Your task to perform on an android device: turn smart compose on in the gmail app Image 0: 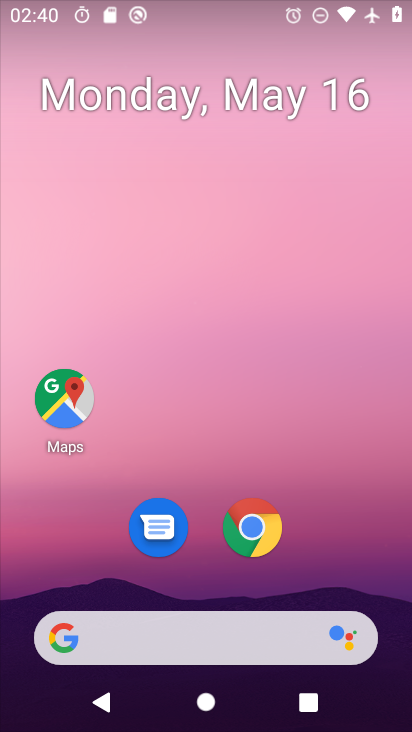
Step 0: press home button
Your task to perform on an android device: turn smart compose on in the gmail app Image 1: 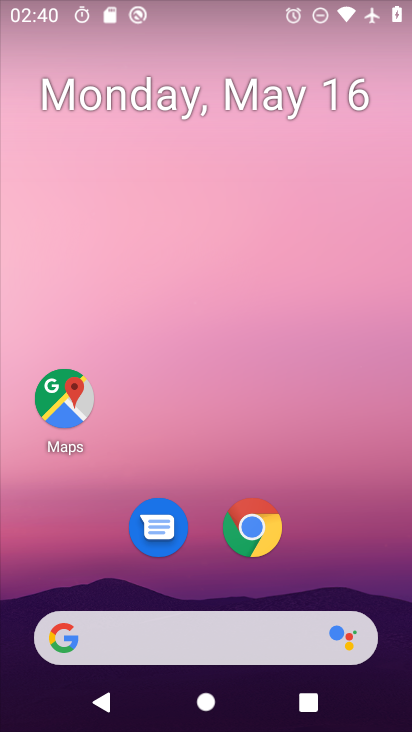
Step 1: drag from (171, 627) to (322, 200)
Your task to perform on an android device: turn smart compose on in the gmail app Image 2: 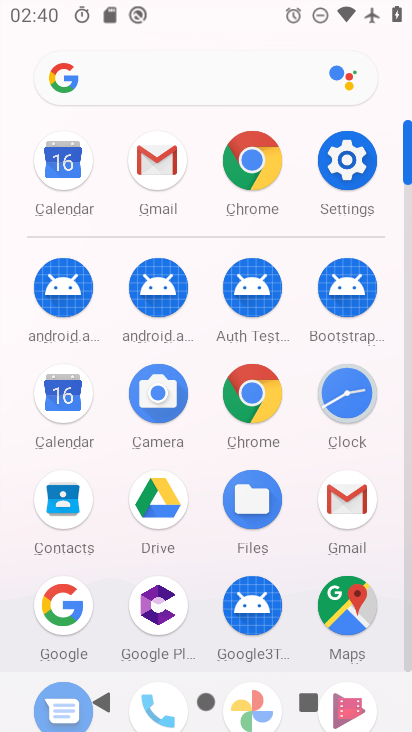
Step 2: click (144, 178)
Your task to perform on an android device: turn smart compose on in the gmail app Image 3: 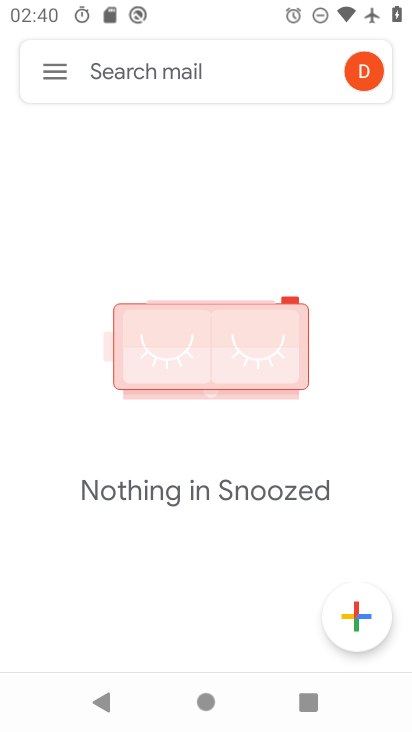
Step 3: click (50, 64)
Your task to perform on an android device: turn smart compose on in the gmail app Image 4: 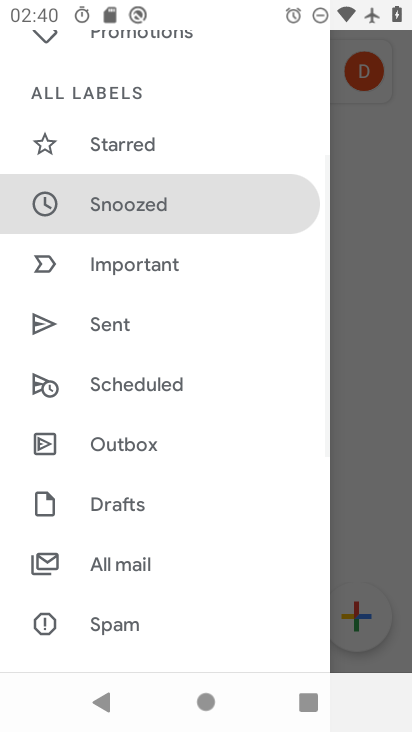
Step 4: drag from (190, 603) to (267, 143)
Your task to perform on an android device: turn smart compose on in the gmail app Image 5: 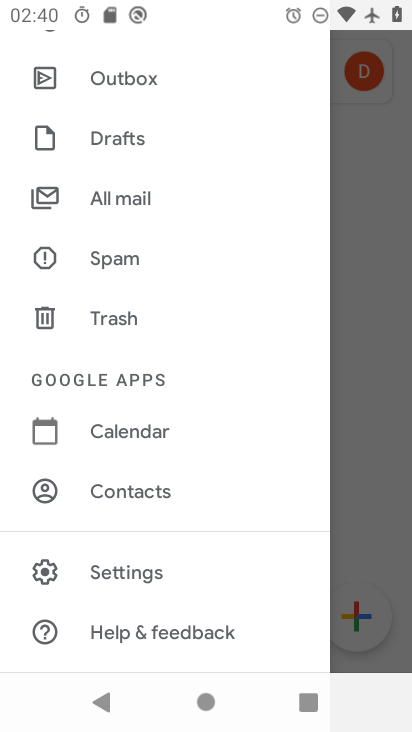
Step 5: click (148, 575)
Your task to perform on an android device: turn smart compose on in the gmail app Image 6: 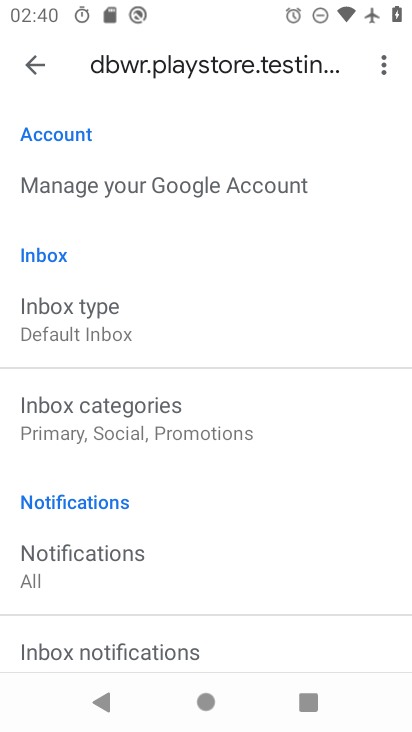
Step 6: task complete